Your task to perform on an android device: search for starred emails in the gmail app Image 0: 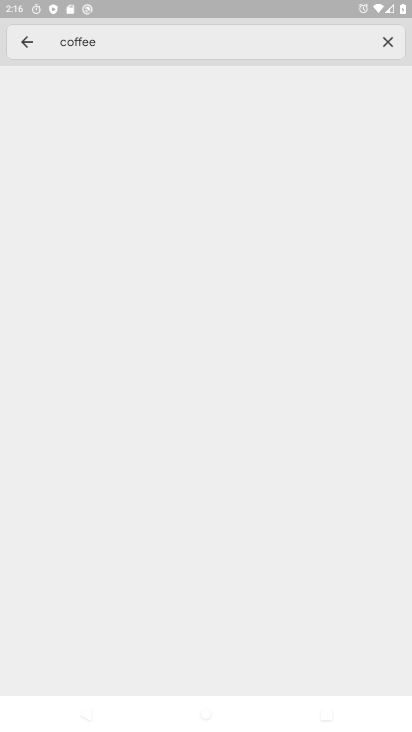
Step 0: press home button
Your task to perform on an android device: search for starred emails in the gmail app Image 1: 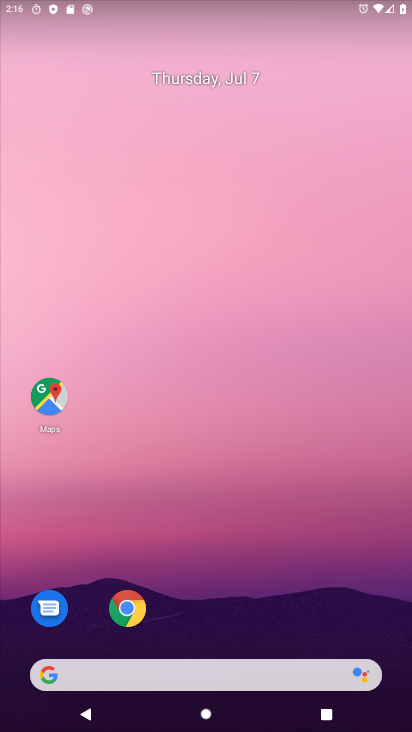
Step 1: drag from (251, 695) to (213, 125)
Your task to perform on an android device: search for starred emails in the gmail app Image 2: 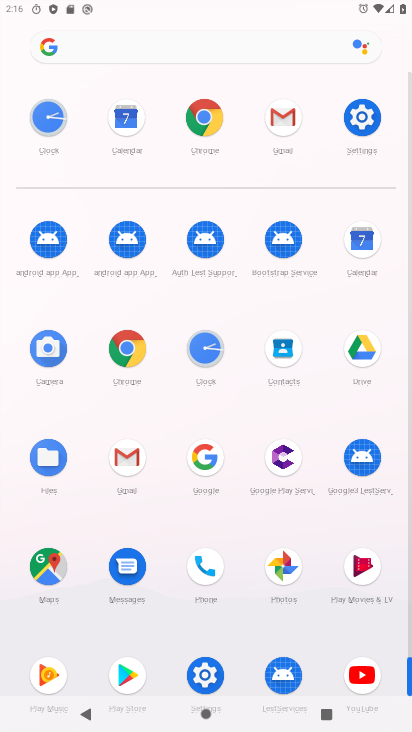
Step 2: click (127, 458)
Your task to perform on an android device: search for starred emails in the gmail app Image 3: 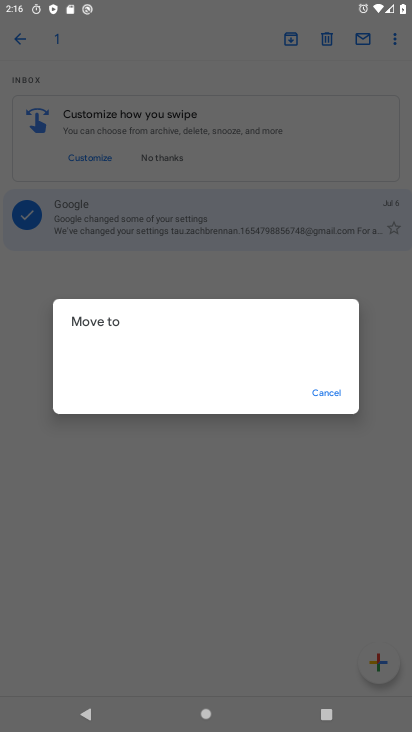
Step 3: click (324, 393)
Your task to perform on an android device: search for starred emails in the gmail app Image 4: 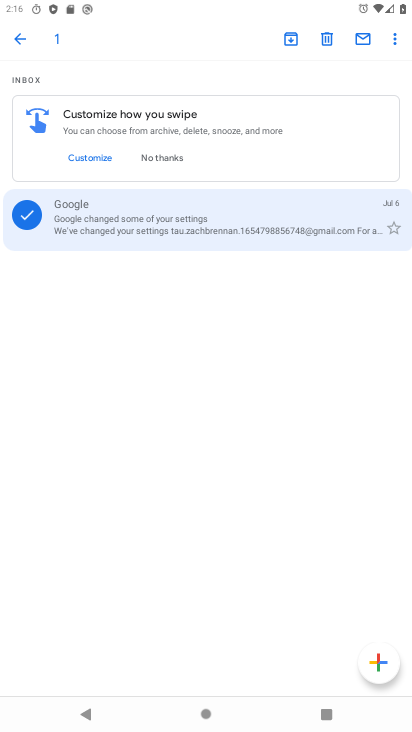
Step 4: click (15, 39)
Your task to perform on an android device: search for starred emails in the gmail app Image 5: 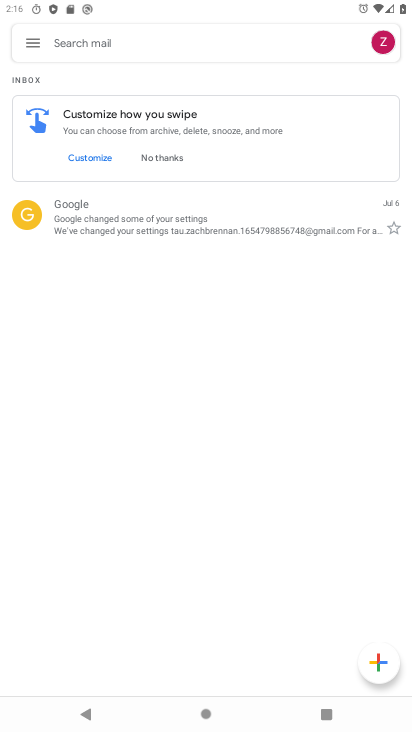
Step 5: click (30, 41)
Your task to perform on an android device: search for starred emails in the gmail app Image 6: 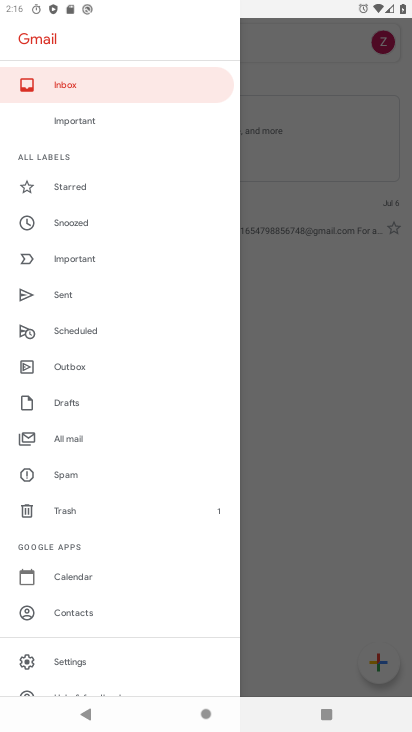
Step 6: click (69, 184)
Your task to perform on an android device: search for starred emails in the gmail app Image 7: 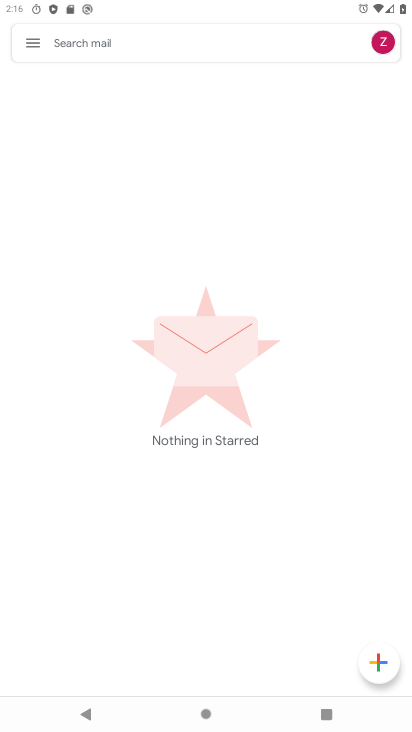
Step 7: task complete